Your task to perform on an android device: Show me popular videos on Youtube Image 0: 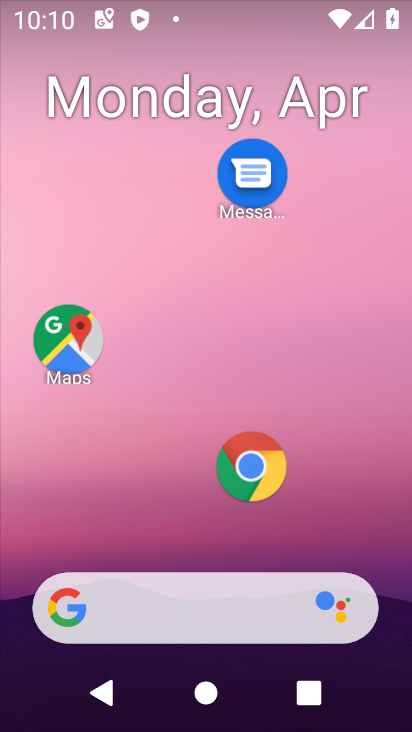
Step 0: drag from (203, 482) to (236, 5)
Your task to perform on an android device: Show me popular videos on Youtube Image 1: 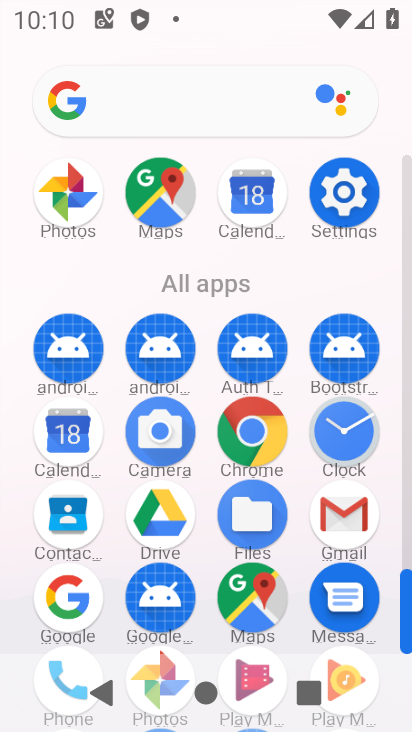
Step 1: drag from (219, 558) to (301, 194)
Your task to perform on an android device: Show me popular videos on Youtube Image 2: 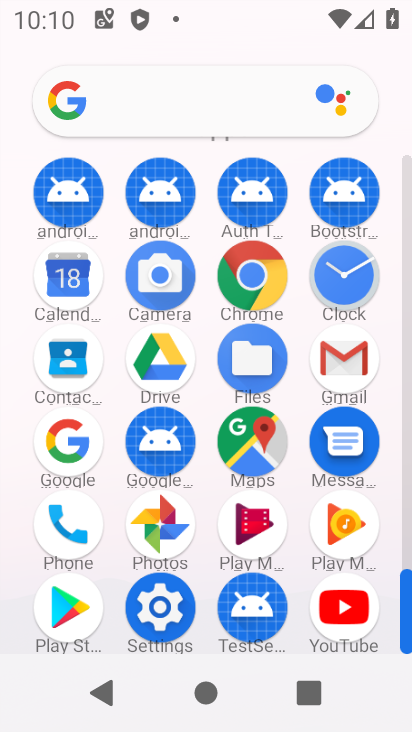
Step 2: click (349, 621)
Your task to perform on an android device: Show me popular videos on Youtube Image 3: 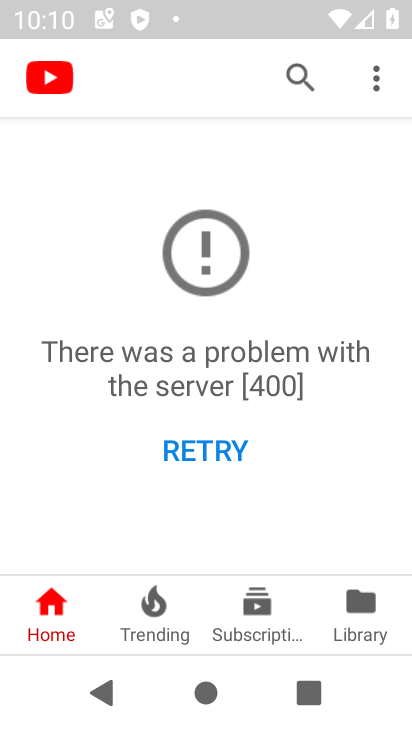
Step 3: click (181, 624)
Your task to perform on an android device: Show me popular videos on Youtube Image 4: 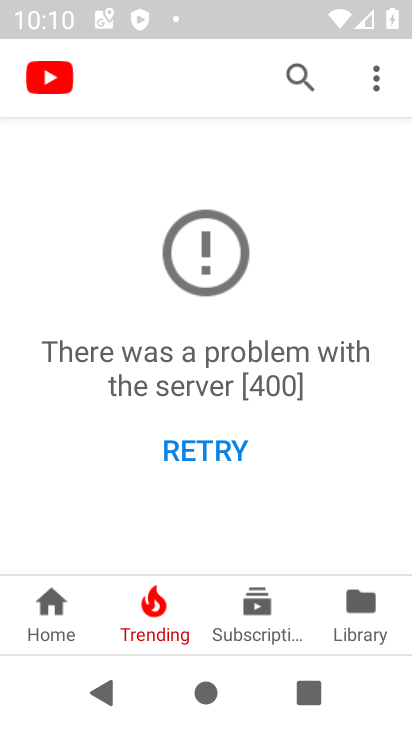
Step 4: task complete